Your task to perform on an android device: Do I have any events tomorrow? Image 0: 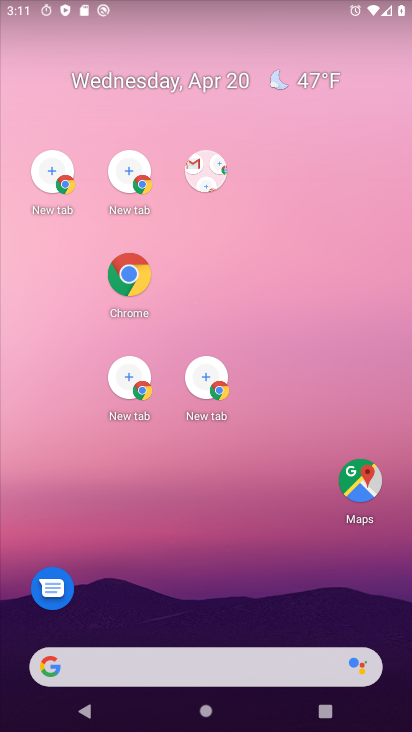
Step 0: drag from (220, 525) to (150, 228)
Your task to perform on an android device: Do I have any events tomorrow? Image 1: 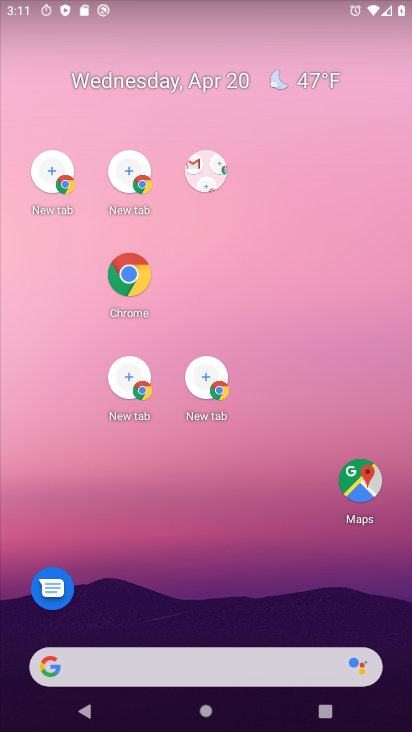
Step 1: drag from (253, 346) to (374, 397)
Your task to perform on an android device: Do I have any events tomorrow? Image 2: 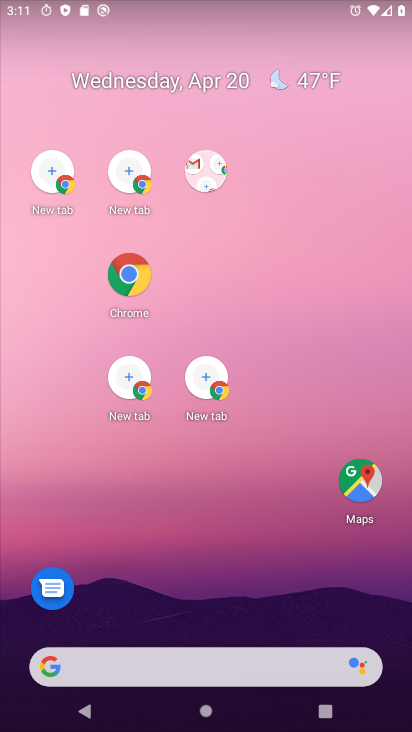
Step 2: drag from (78, 334) to (409, 331)
Your task to perform on an android device: Do I have any events tomorrow? Image 3: 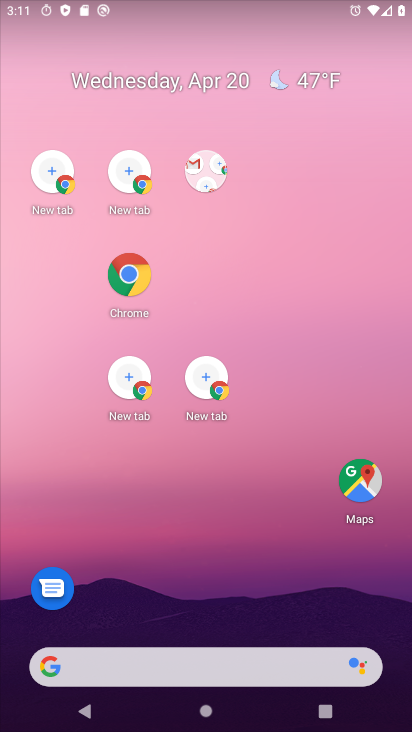
Step 3: drag from (14, 370) to (406, 370)
Your task to perform on an android device: Do I have any events tomorrow? Image 4: 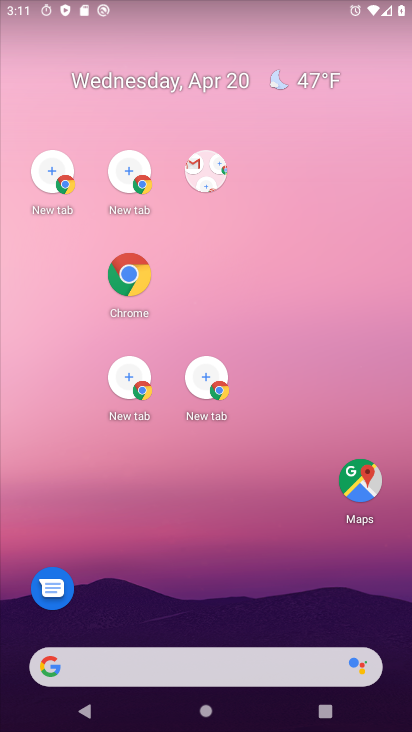
Step 4: drag from (63, 287) to (263, 351)
Your task to perform on an android device: Do I have any events tomorrow? Image 5: 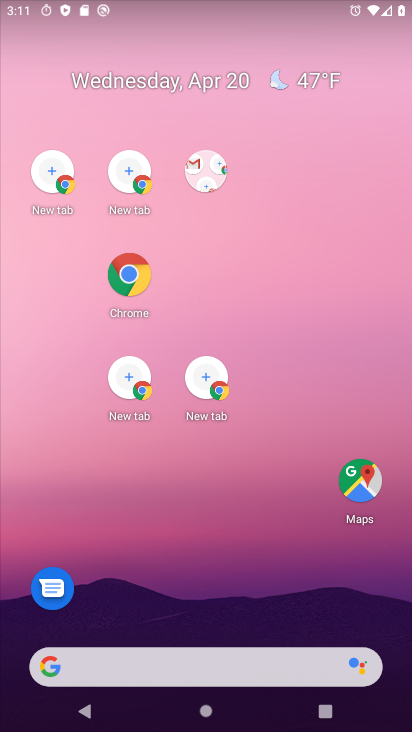
Step 5: click (303, 392)
Your task to perform on an android device: Do I have any events tomorrow? Image 6: 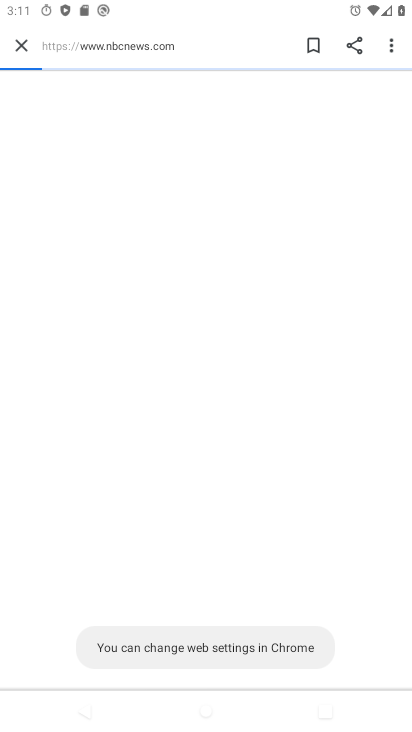
Step 6: drag from (167, 526) to (43, 546)
Your task to perform on an android device: Do I have any events tomorrow? Image 7: 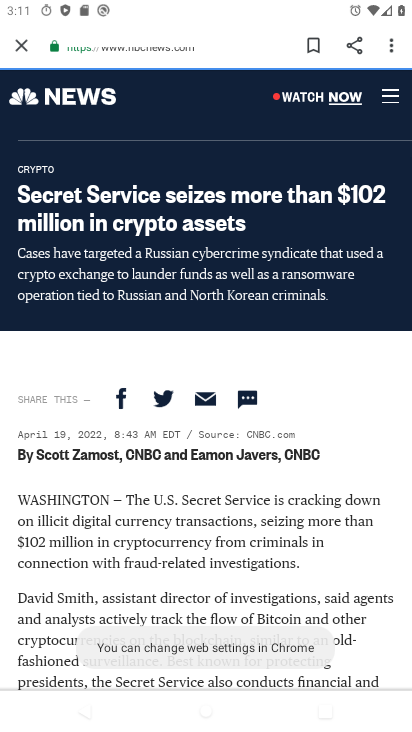
Step 7: press home button
Your task to perform on an android device: Do I have any events tomorrow? Image 8: 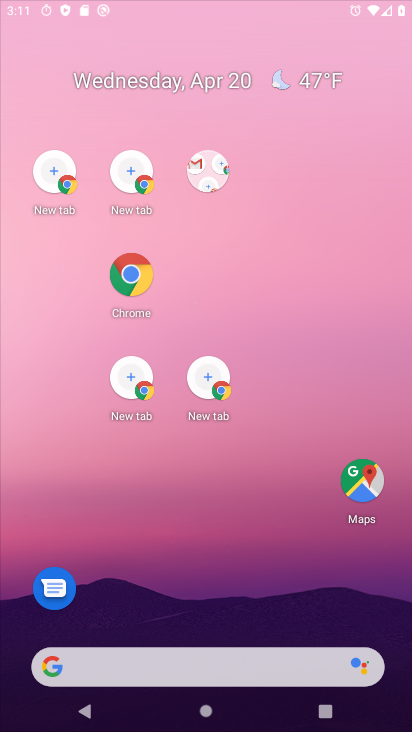
Step 8: press home button
Your task to perform on an android device: Do I have any events tomorrow? Image 9: 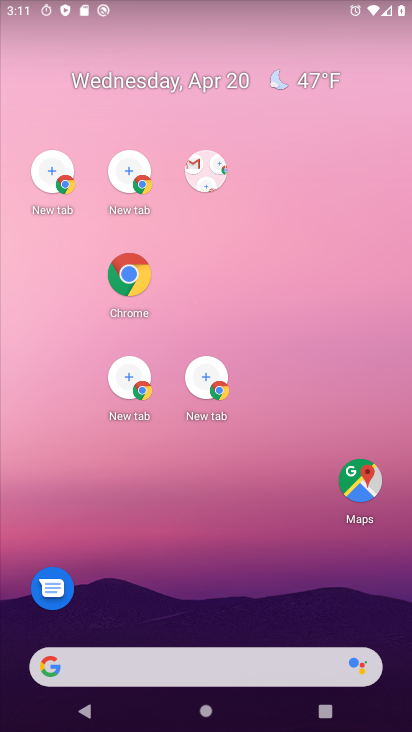
Step 9: drag from (277, 689) to (208, 135)
Your task to perform on an android device: Do I have any events tomorrow? Image 10: 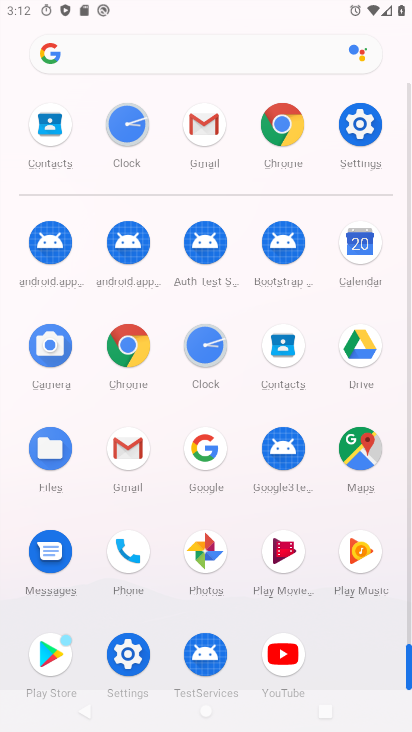
Step 10: click (361, 238)
Your task to perform on an android device: Do I have any events tomorrow? Image 11: 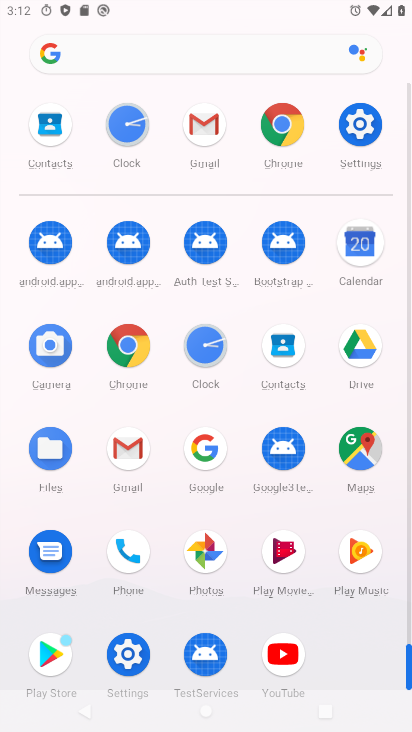
Step 11: click (361, 238)
Your task to perform on an android device: Do I have any events tomorrow? Image 12: 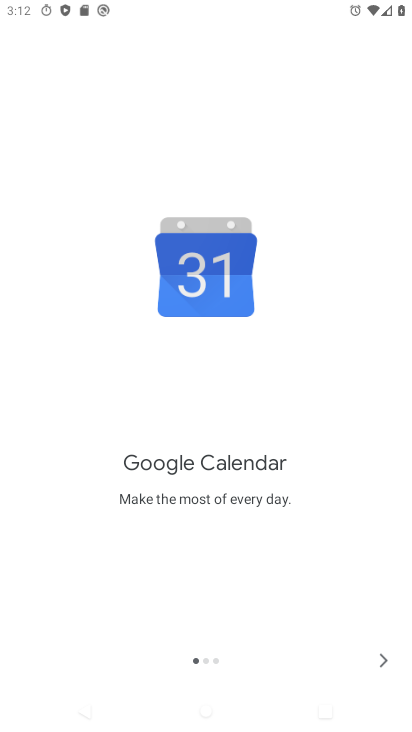
Step 12: click (380, 658)
Your task to perform on an android device: Do I have any events tomorrow? Image 13: 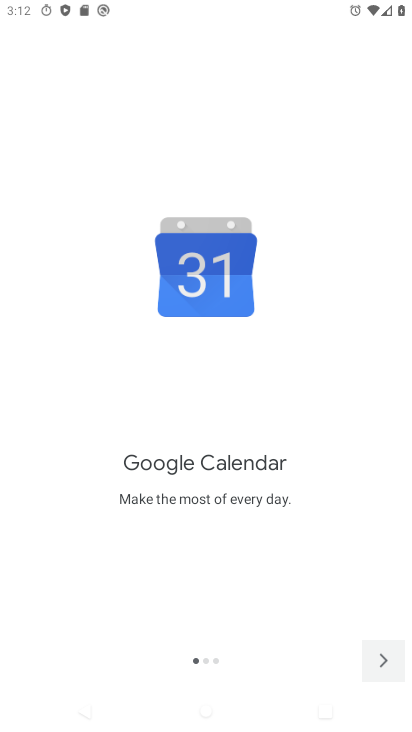
Step 13: click (380, 658)
Your task to perform on an android device: Do I have any events tomorrow? Image 14: 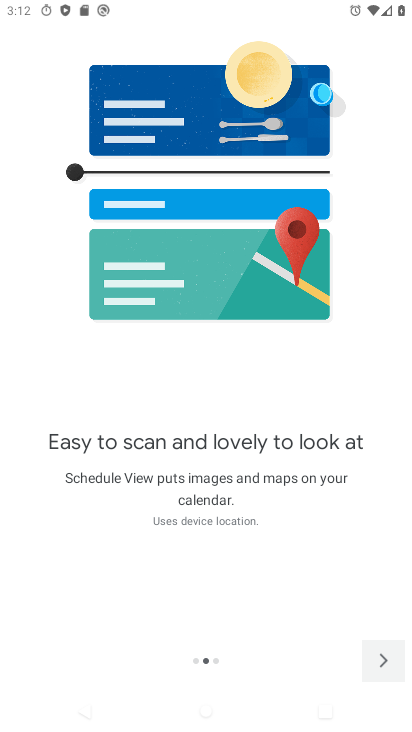
Step 14: click (378, 656)
Your task to perform on an android device: Do I have any events tomorrow? Image 15: 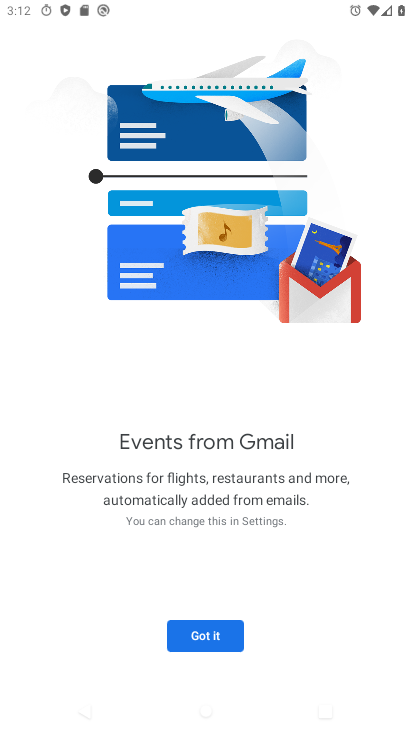
Step 15: click (376, 656)
Your task to perform on an android device: Do I have any events tomorrow? Image 16: 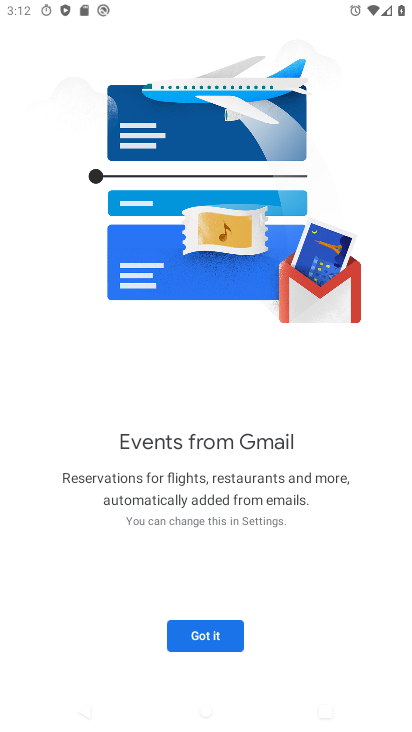
Step 16: click (192, 630)
Your task to perform on an android device: Do I have any events tomorrow? Image 17: 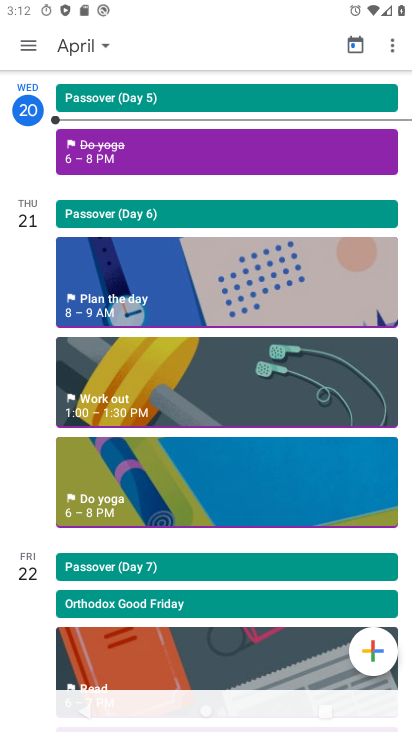
Step 17: task complete